Your task to perform on an android device: Go to Reddit.com Image 0: 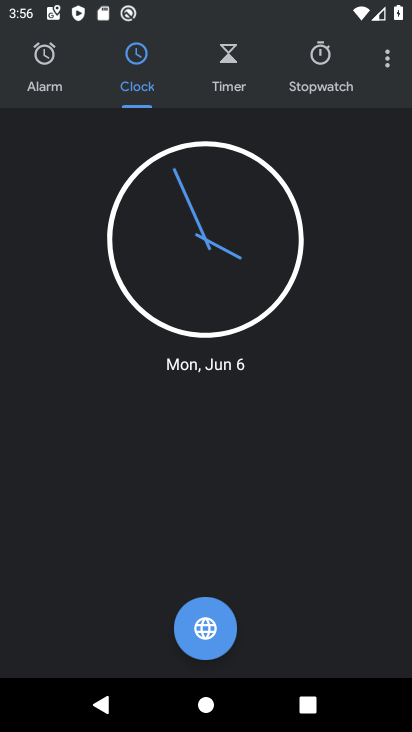
Step 0: press home button
Your task to perform on an android device: Go to Reddit.com Image 1: 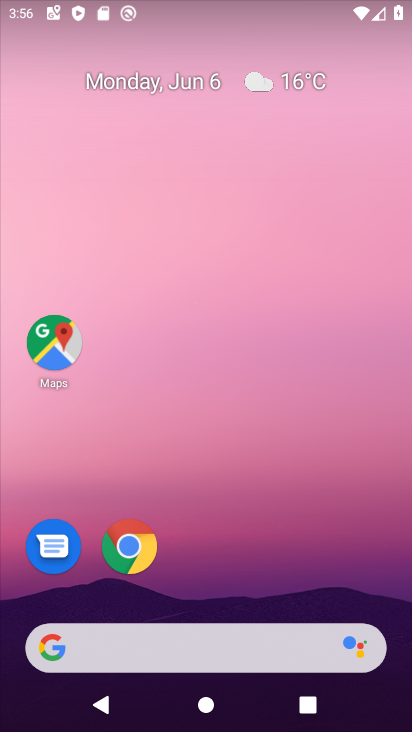
Step 1: drag from (322, 457) to (355, 0)
Your task to perform on an android device: Go to Reddit.com Image 2: 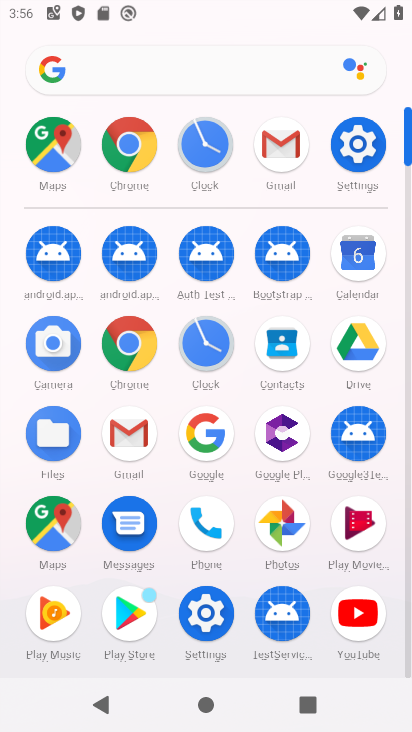
Step 2: click (127, 154)
Your task to perform on an android device: Go to Reddit.com Image 3: 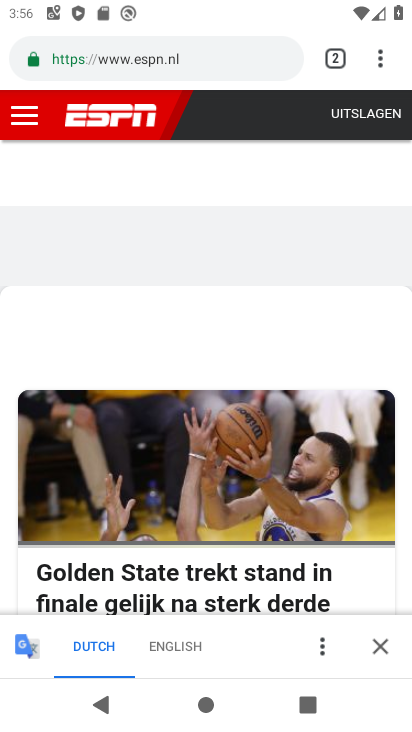
Step 3: click (207, 58)
Your task to perform on an android device: Go to Reddit.com Image 4: 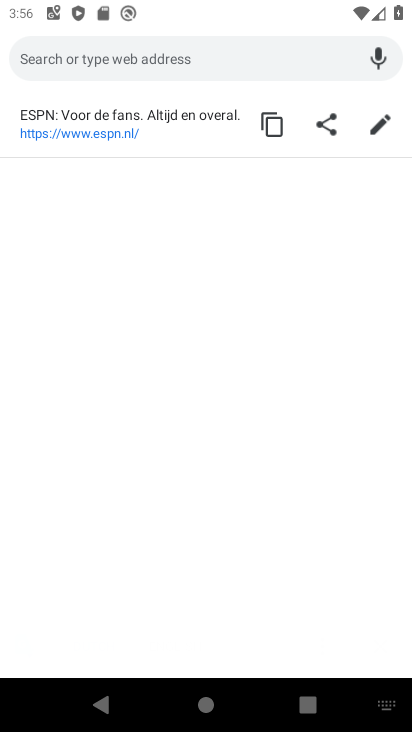
Step 4: type "reddit"
Your task to perform on an android device: Go to Reddit.com Image 5: 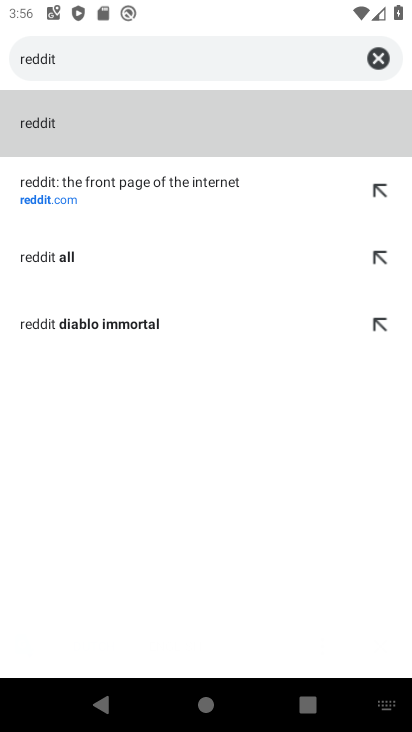
Step 5: click (64, 196)
Your task to perform on an android device: Go to Reddit.com Image 6: 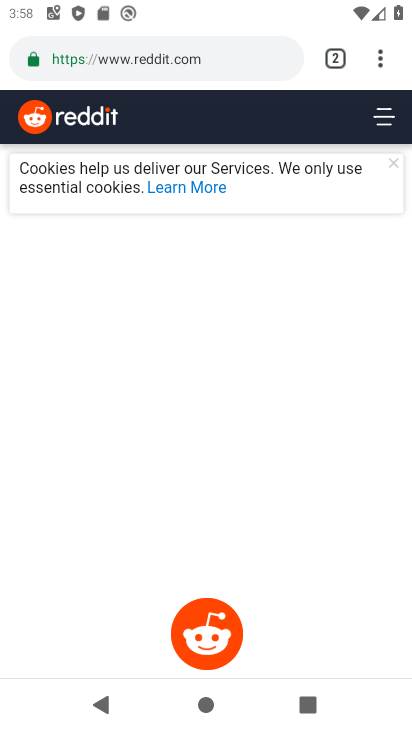
Step 6: task complete